Your task to perform on an android device: Open Yahoo.com Image 0: 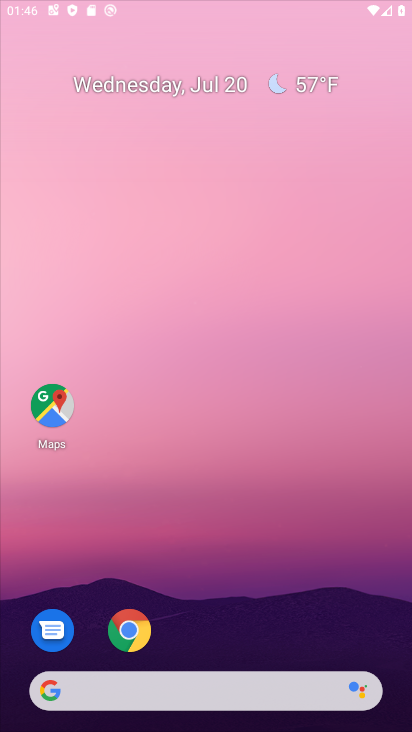
Step 0: drag from (257, 199) to (254, 129)
Your task to perform on an android device: Open Yahoo.com Image 1: 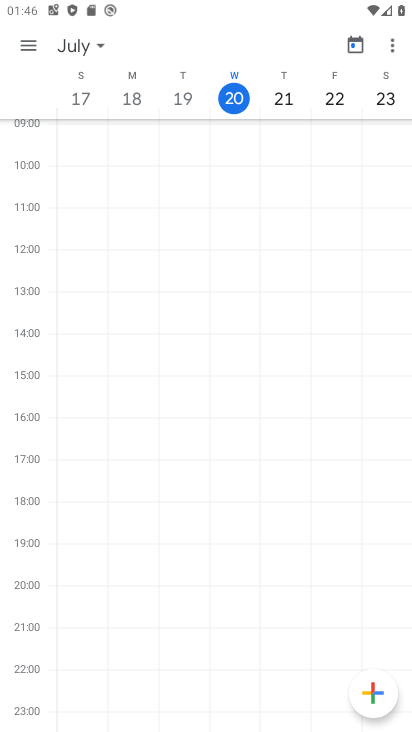
Step 1: press home button
Your task to perform on an android device: Open Yahoo.com Image 2: 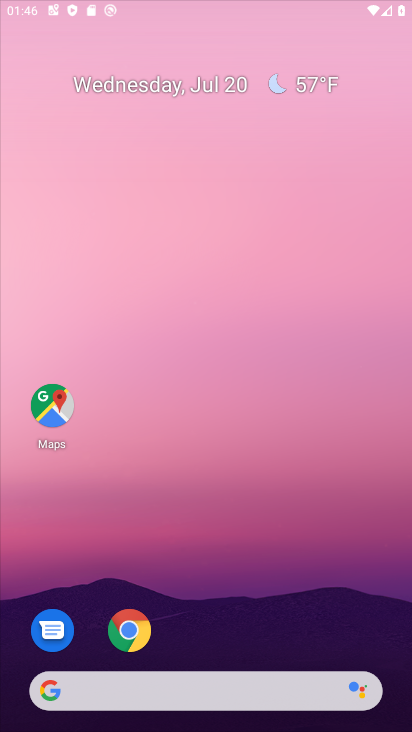
Step 2: drag from (280, 628) to (288, 146)
Your task to perform on an android device: Open Yahoo.com Image 3: 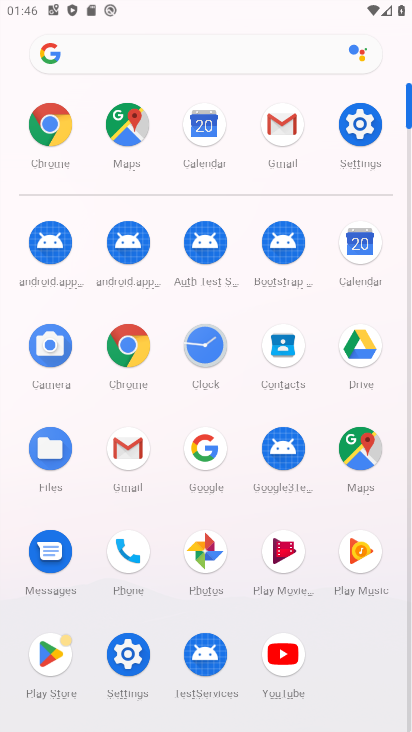
Step 3: click (130, 350)
Your task to perform on an android device: Open Yahoo.com Image 4: 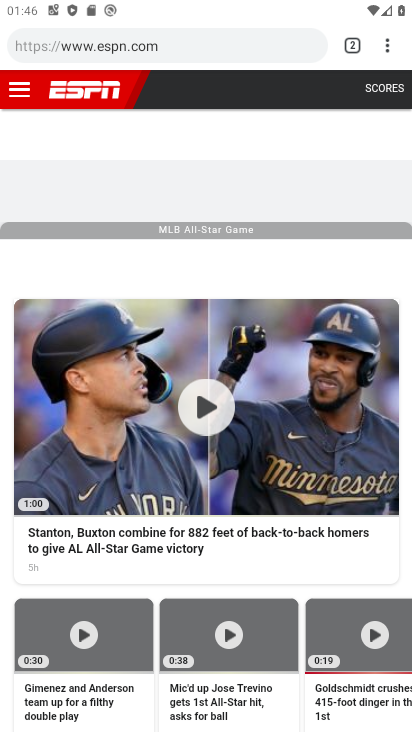
Step 4: click (201, 37)
Your task to perform on an android device: Open Yahoo.com Image 5: 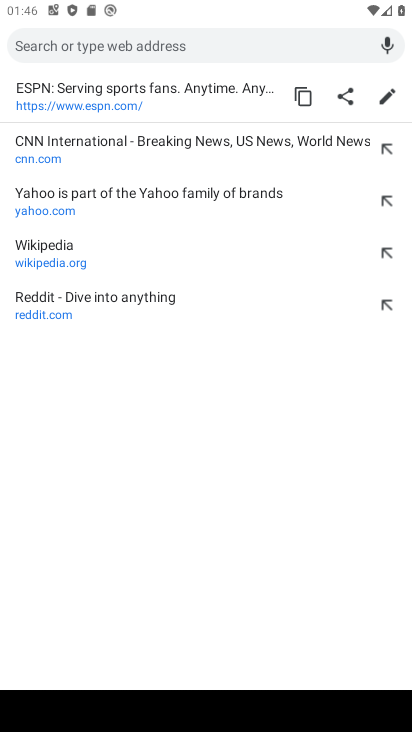
Step 5: type "yahoo.com"
Your task to perform on an android device: Open Yahoo.com Image 6: 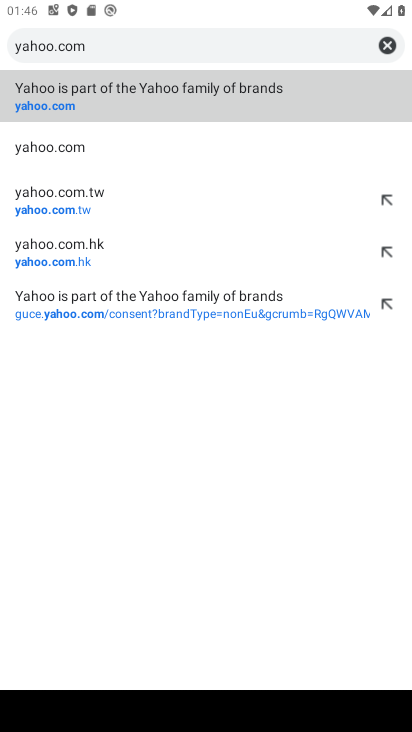
Step 6: click (31, 104)
Your task to perform on an android device: Open Yahoo.com Image 7: 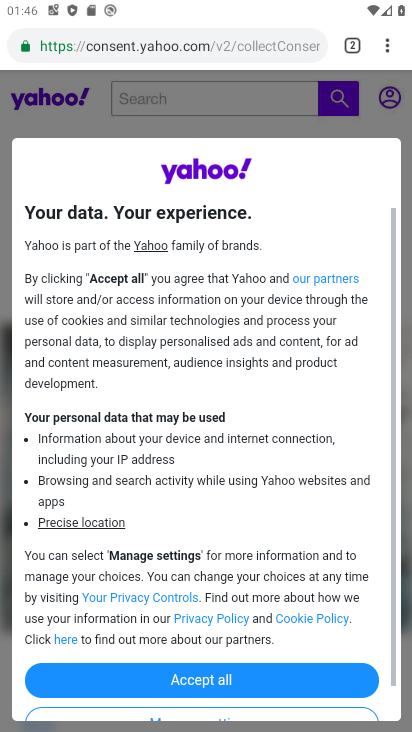
Step 7: task complete